Your task to perform on an android device: Search for sushi restaurants on Maps Image 0: 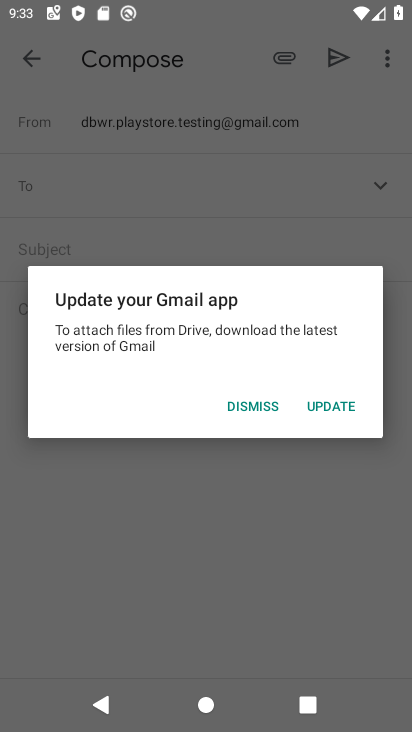
Step 0: press home button
Your task to perform on an android device: Search for sushi restaurants on Maps Image 1: 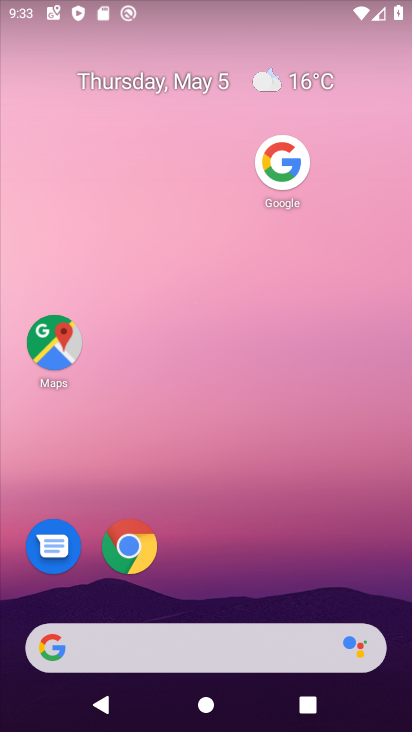
Step 1: drag from (146, 652) to (282, 131)
Your task to perform on an android device: Search for sushi restaurants on Maps Image 2: 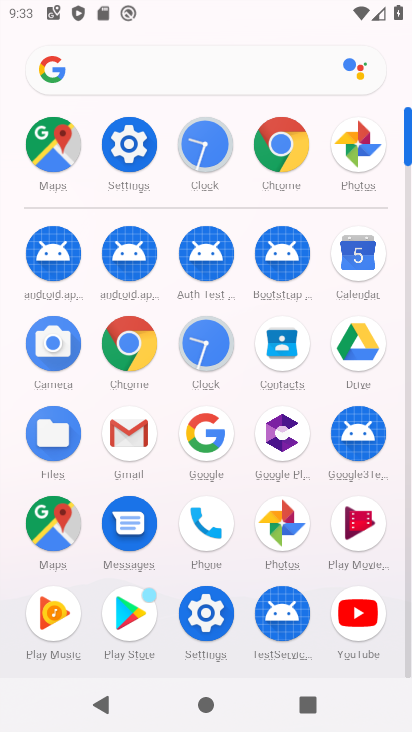
Step 2: click (56, 160)
Your task to perform on an android device: Search for sushi restaurants on Maps Image 3: 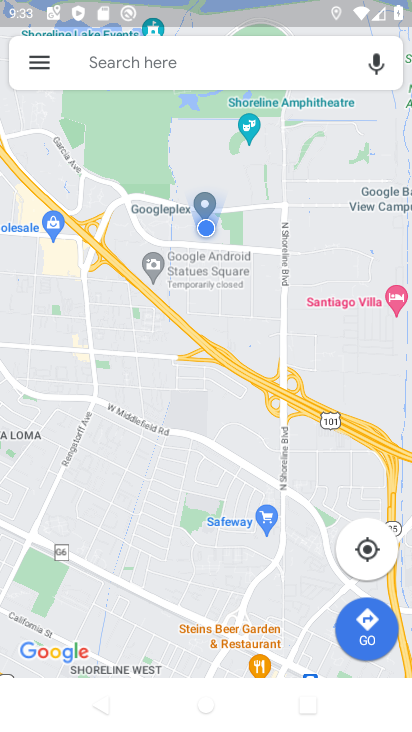
Step 3: click (210, 66)
Your task to perform on an android device: Search for sushi restaurants on Maps Image 4: 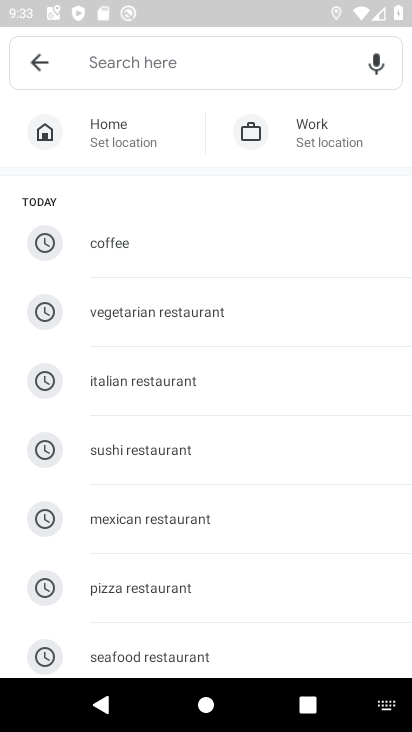
Step 4: click (141, 445)
Your task to perform on an android device: Search for sushi restaurants on Maps Image 5: 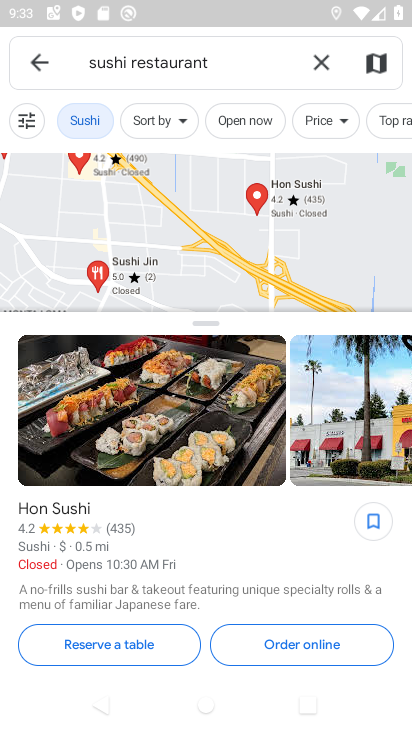
Step 5: task complete